Your task to perform on an android device: change alarm snooze length Image 0: 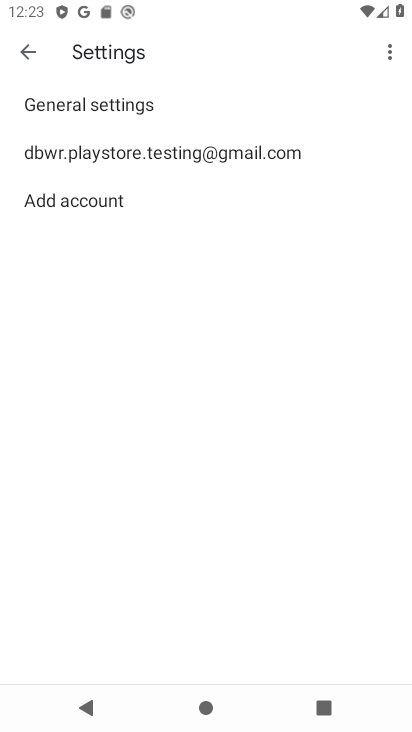
Step 0: press back button
Your task to perform on an android device: change alarm snooze length Image 1: 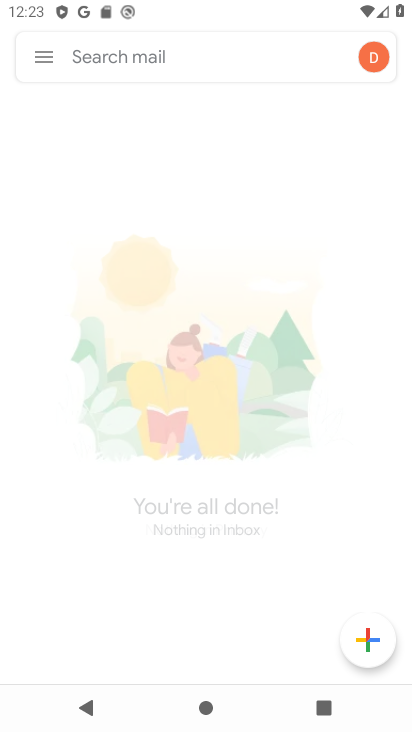
Step 1: press back button
Your task to perform on an android device: change alarm snooze length Image 2: 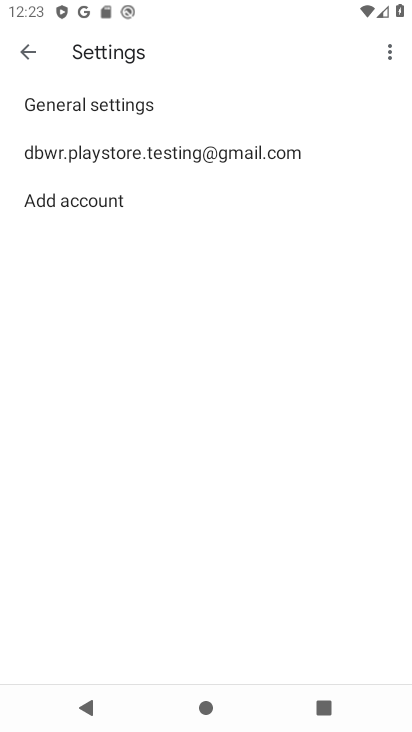
Step 2: press back button
Your task to perform on an android device: change alarm snooze length Image 3: 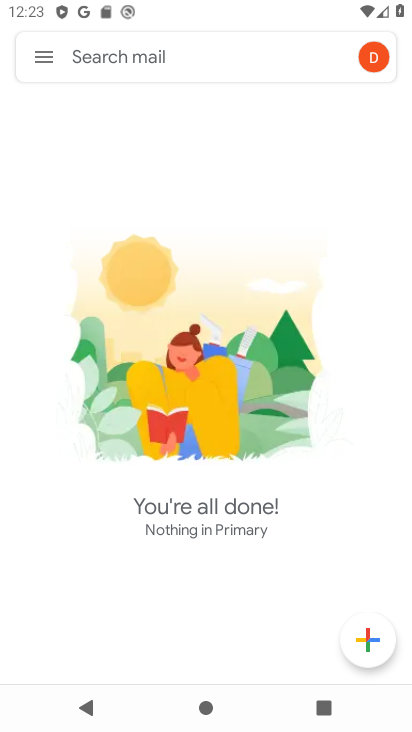
Step 3: press back button
Your task to perform on an android device: change alarm snooze length Image 4: 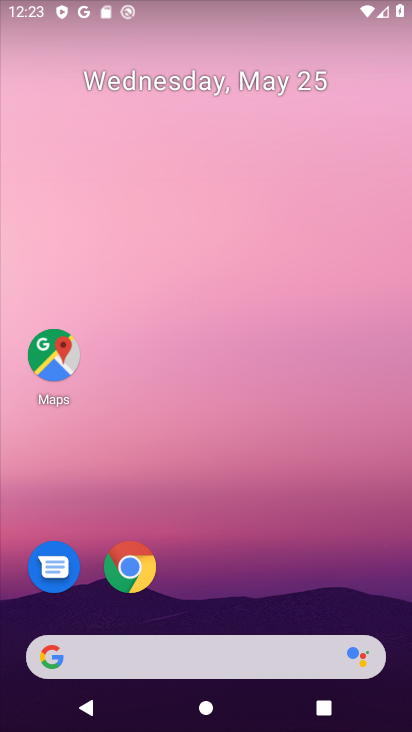
Step 4: drag from (246, 569) to (150, 103)
Your task to perform on an android device: change alarm snooze length Image 5: 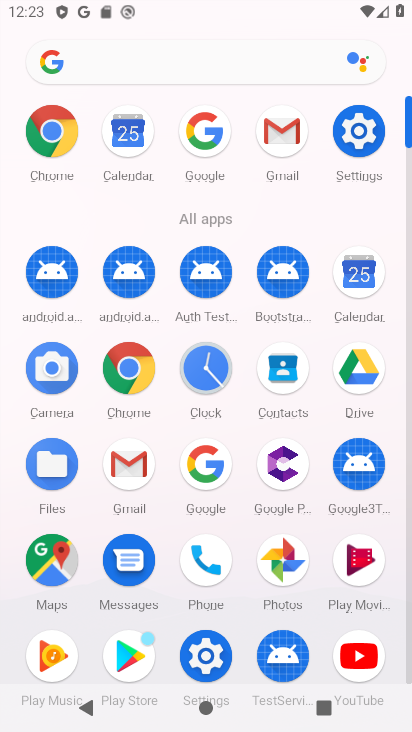
Step 5: click (207, 366)
Your task to perform on an android device: change alarm snooze length Image 6: 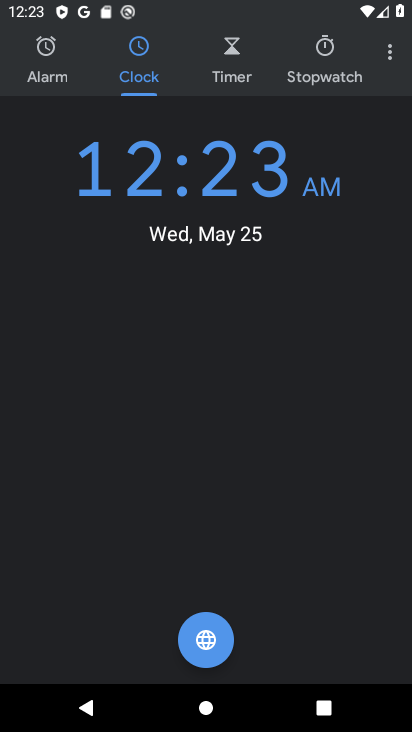
Step 6: click (392, 56)
Your task to perform on an android device: change alarm snooze length Image 7: 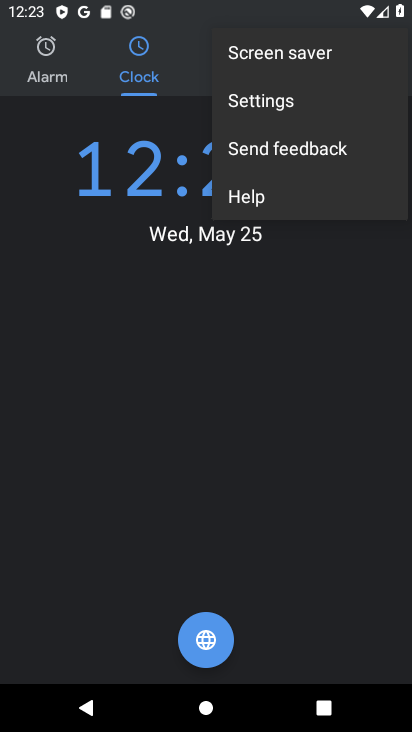
Step 7: click (270, 105)
Your task to perform on an android device: change alarm snooze length Image 8: 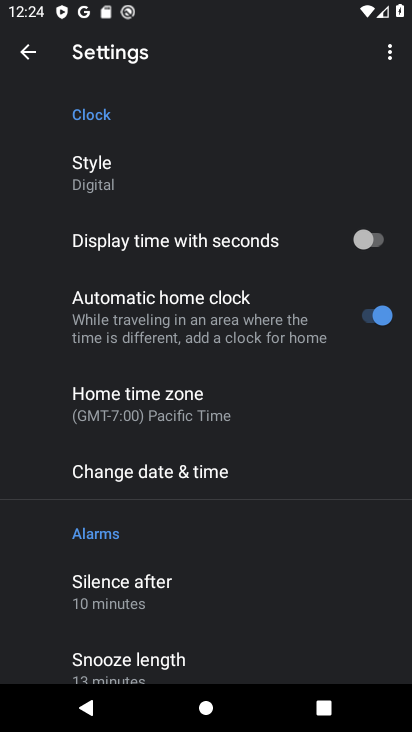
Step 8: drag from (251, 527) to (253, 407)
Your task to perform on an android device: change alarm snooze length Image 9: 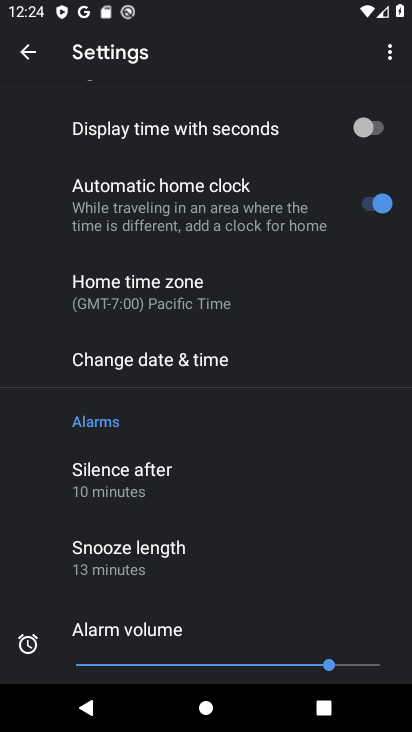
Step 9: click (140, 553)
Your task to perform on an android device: change alarm snooze length Image 10: 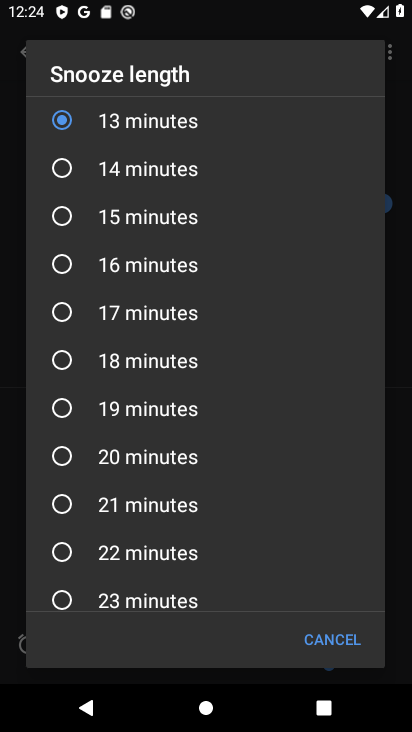
Step 10: drag from (110, 313) to (126, 462)
Your task to perform on an android device: change alarm snooze length Image 11: 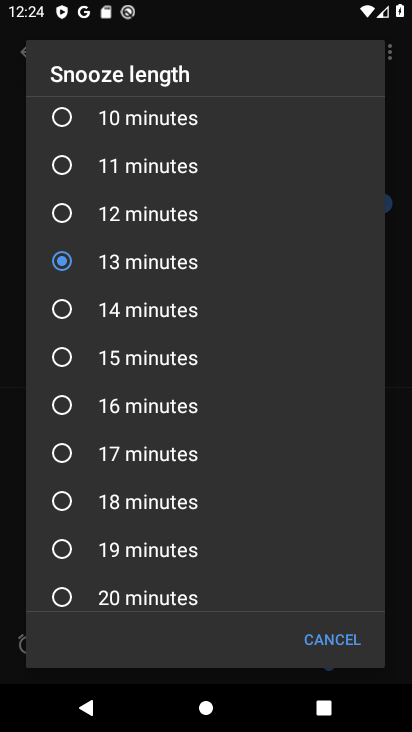
Step 11: drag from (151, 172) to (138, 470)
Your task to perform on an android device: change alarm snooze length Image 12: 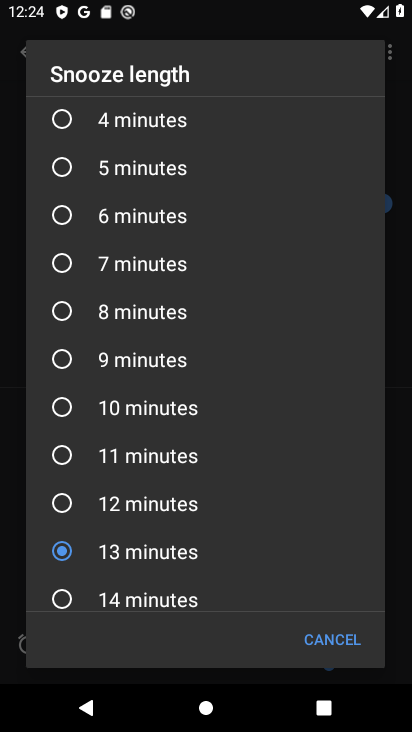
Step 12: drag from (145, 165) to (113, 443)
Your task to perform on an android device: change alarm snooze length Image 13: 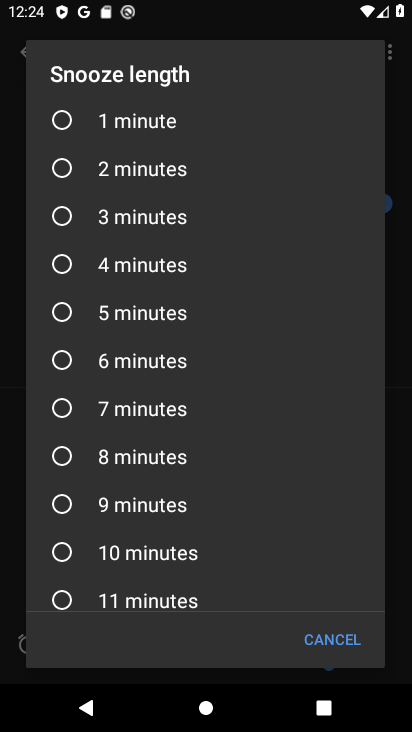
Step 13: click (56, 117)
Your task to perform on an android device: change alarm snooze length Image 14: 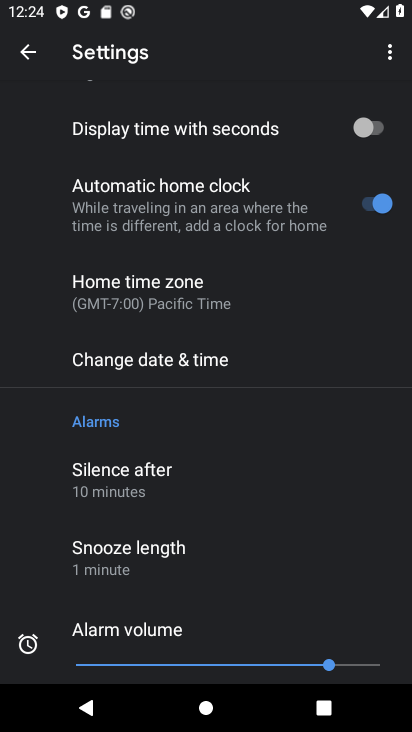
Step 14: task complete